Your task to perform on an android device: toggle data saver in the chrome app Image 0: 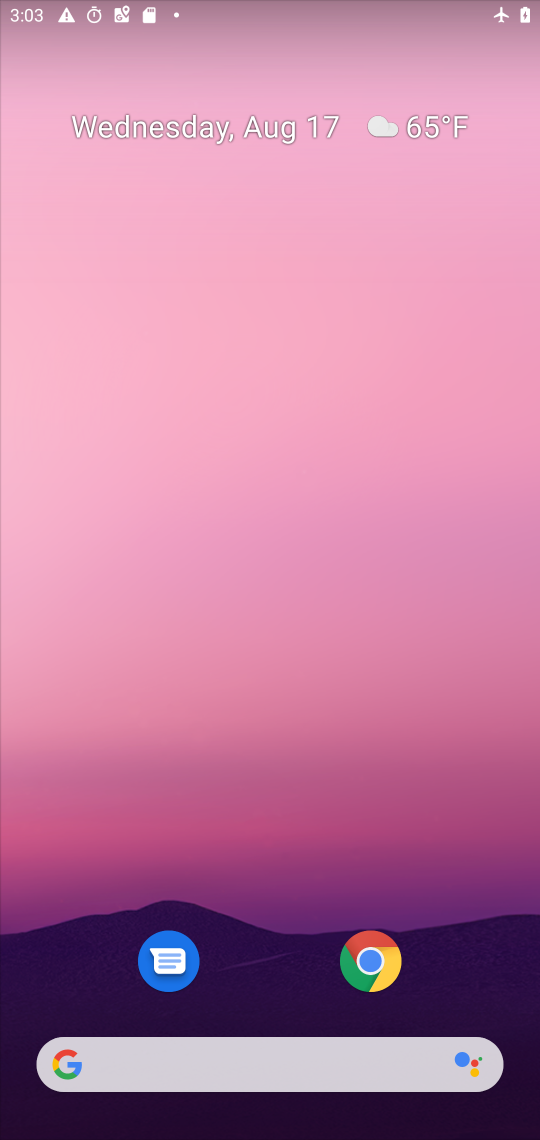
Step 0: drag from (274, 1012) to (254, 80)
Your task to perform on an android device: toggle data saver in the chrome app Image 1: 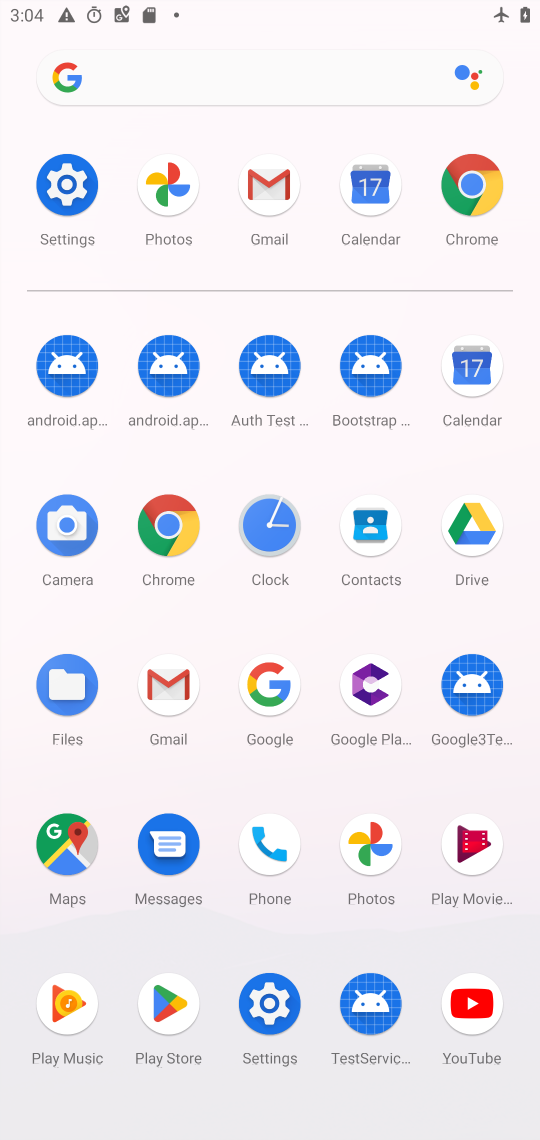
Step 1: click (184, 512)
Your task to perform on an android device: toggle data saver in the chrome app Image 2: 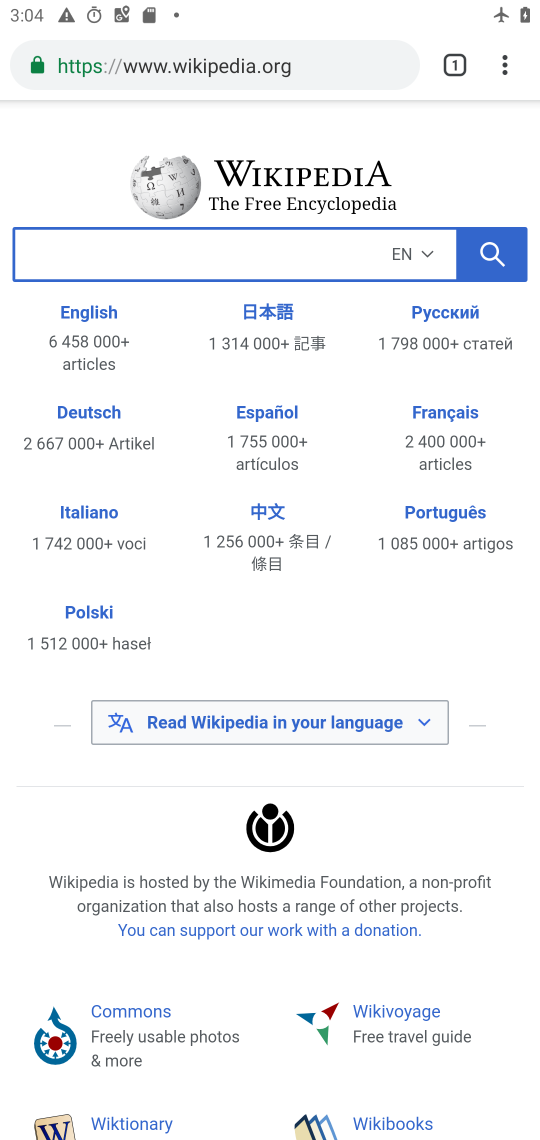
Step 2: click (489, 65)
Your task to perform on an android device: toggle data saver in the chrome app Image 3: 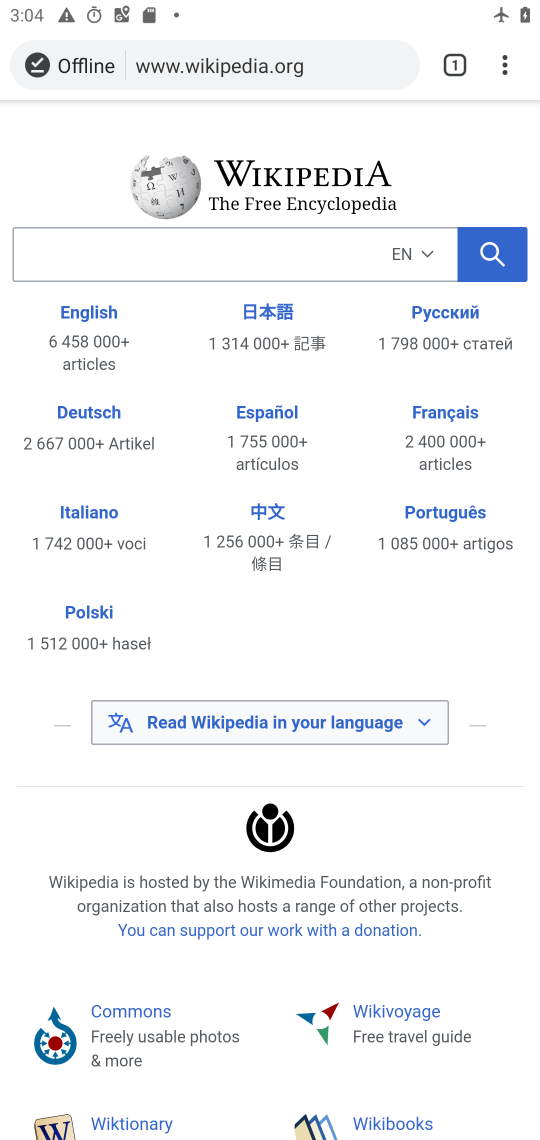
Step 3: click (511, 71)
Your task to perform on an android device: toggle data saver in the chrome app Image 4: 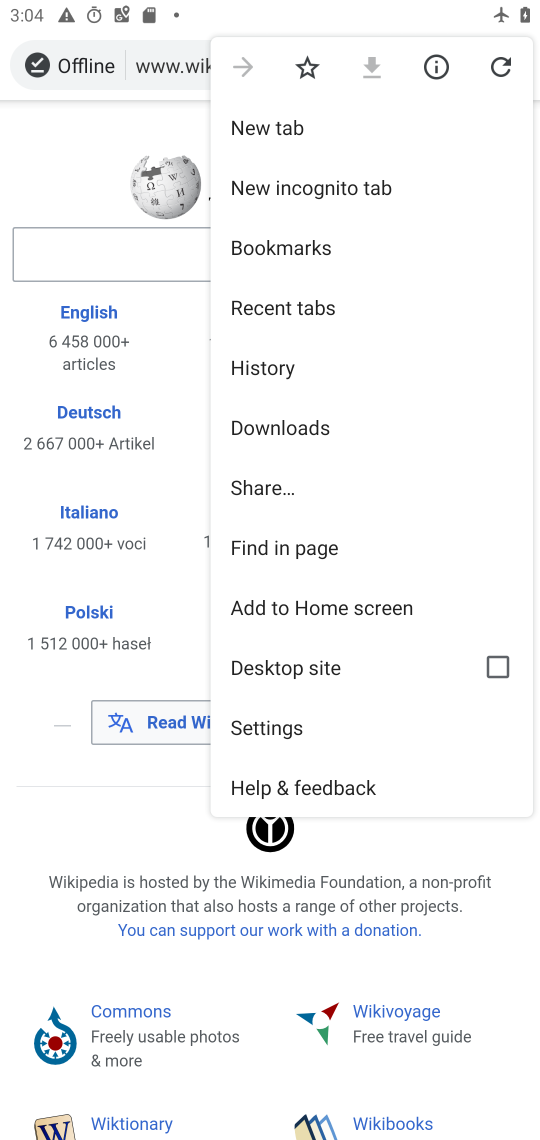
Step 4: click (270, 725)
Your task to perform on an android device: toggle data saver in the chrome app Image 5: 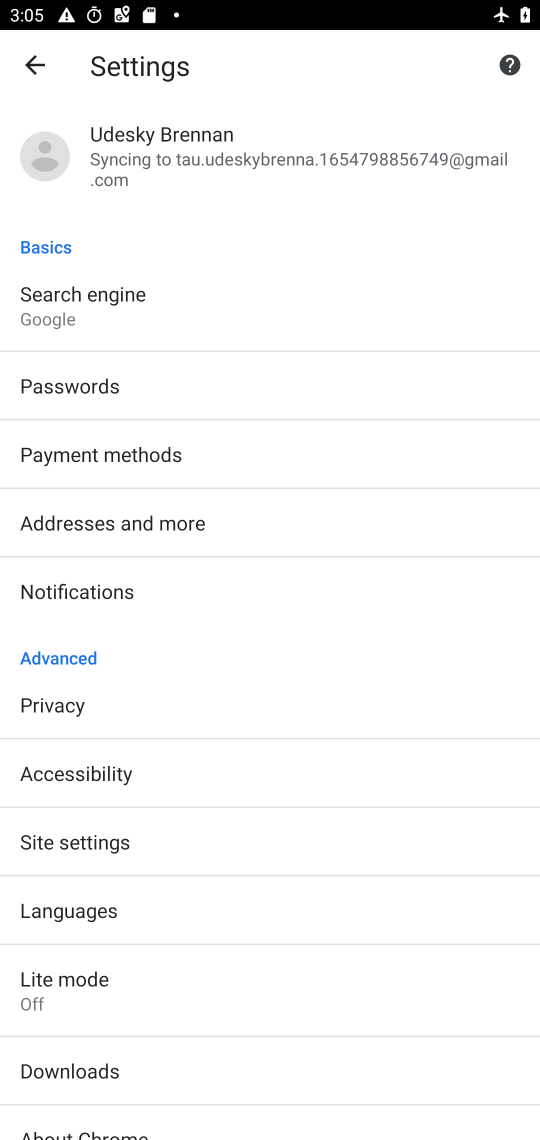
Step 5: click (89, 1004)
Your task to perform on an android device: toggle data saver in the chrome app Image 6: 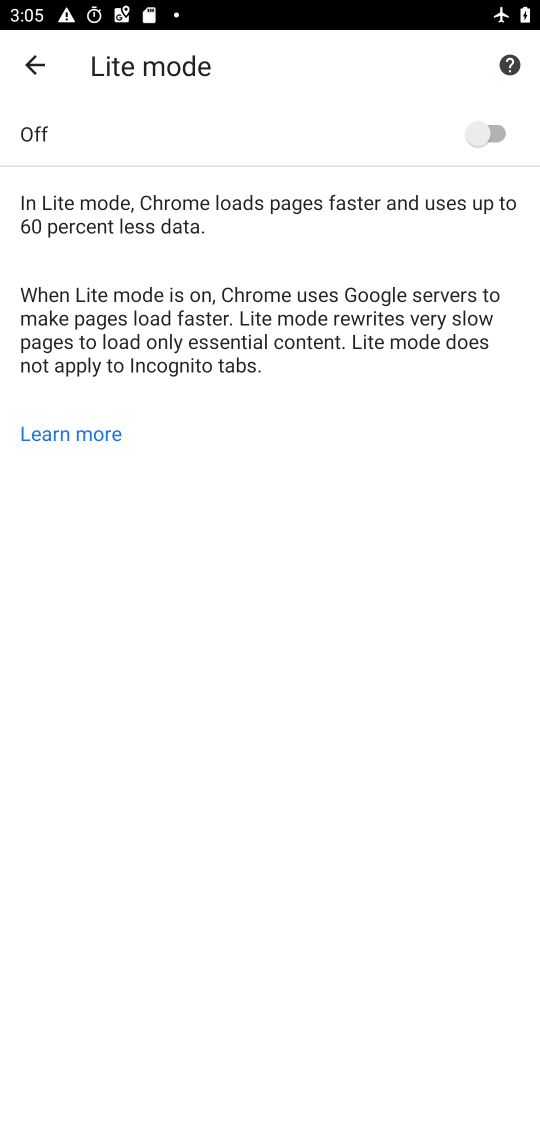
Step 6: click (91, 993)
Your task to perform on an android device: toggle data saver in the chrome app Image 7: 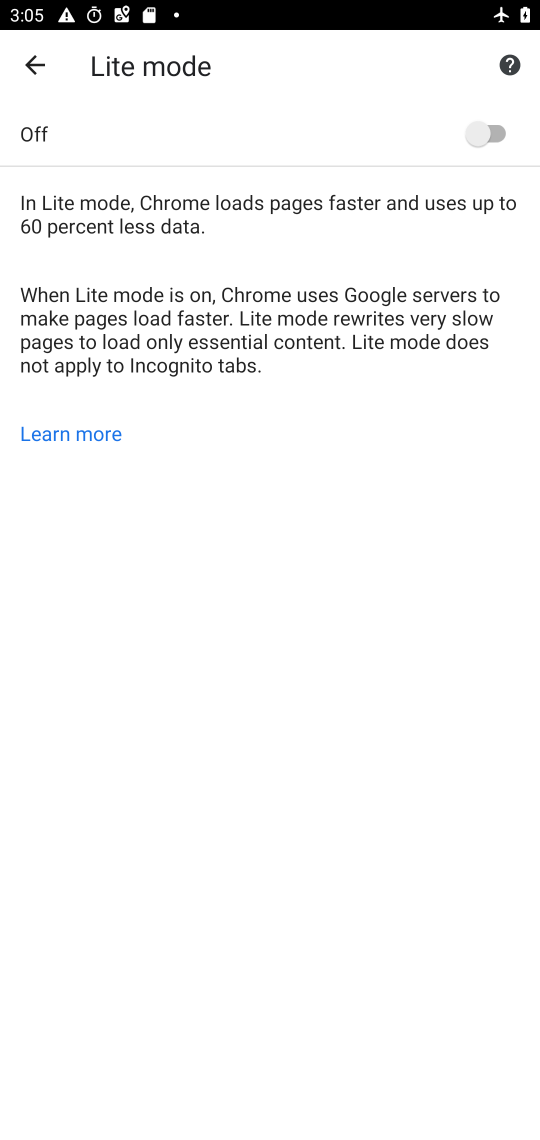
Step 7: click (496, 138)
Your task to perform on an android device: toggle data saver in the chrome app Image 8: 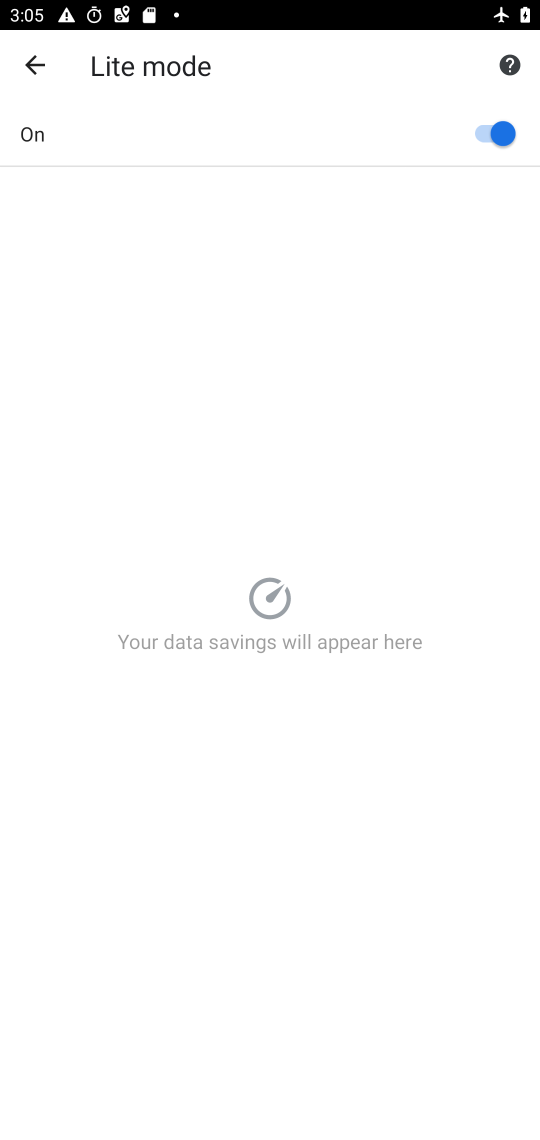
Step 8: task complete